Your task to perform on an android device: open device folders in google photos Image 0: 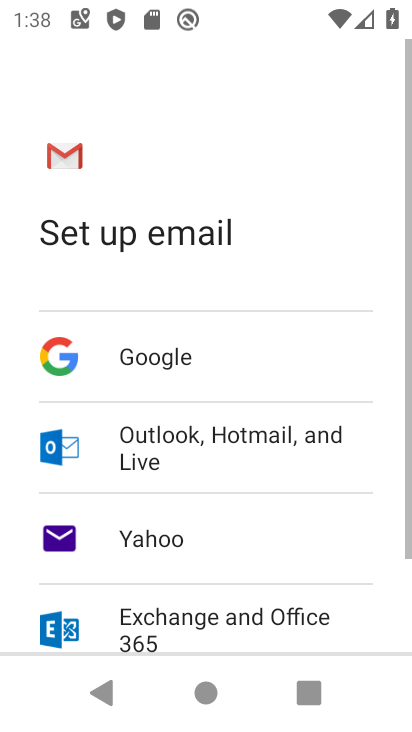
Step 0: press home button
Your task to perform on an android device: open device folders in google photos Image 1: 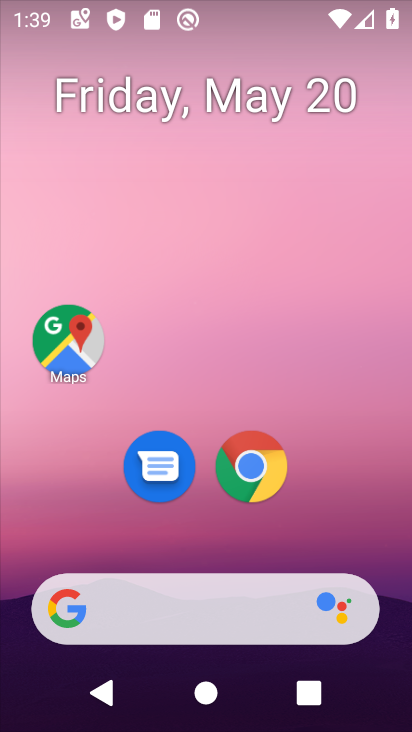
Step 1: drag from (180, 558) to (85, 120)
Your task to perform on an android device: open device folders in google photos Image 2: 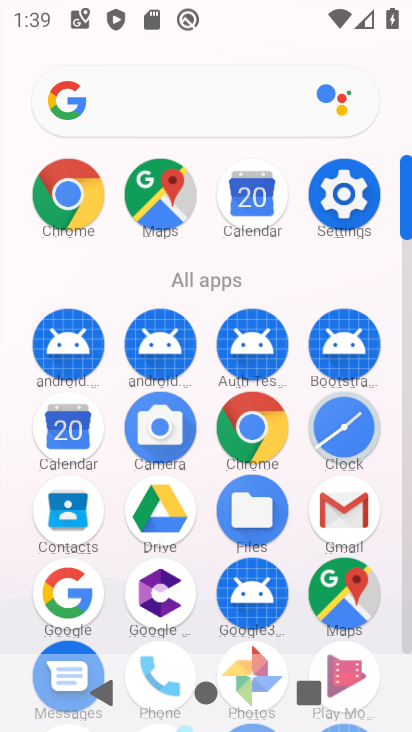
Step 2: click (243, 643)
Your task to perform on an android device: open device folders in google photos Image 3: 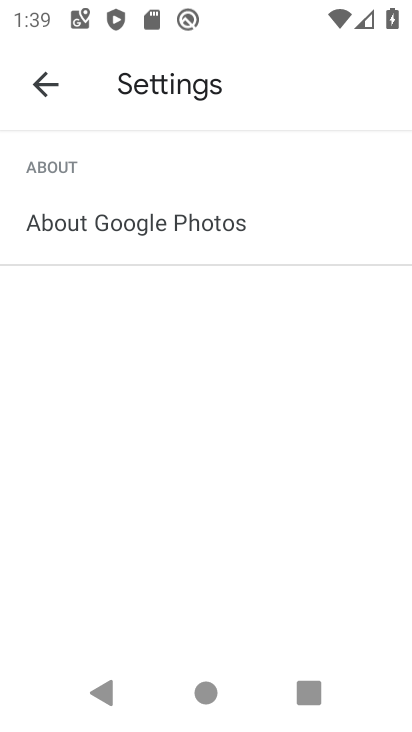
Step 3: click (52, 78)
Your task to perform on an android device: open device folders in google photos Image 4: 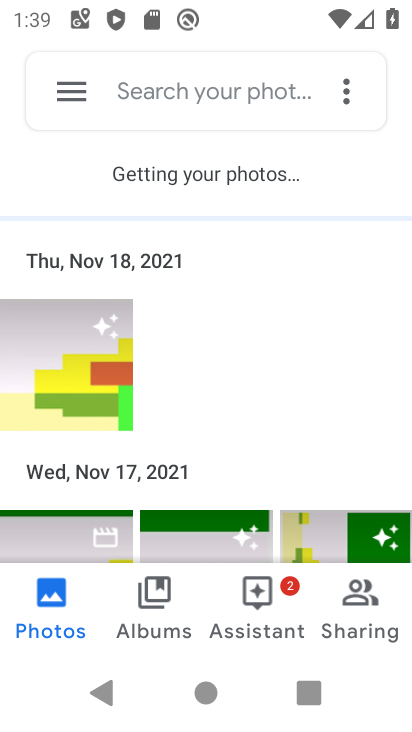
Step 4: click (75, 99)
Your task to perform on an android device: open device folders in google photos Image 5: 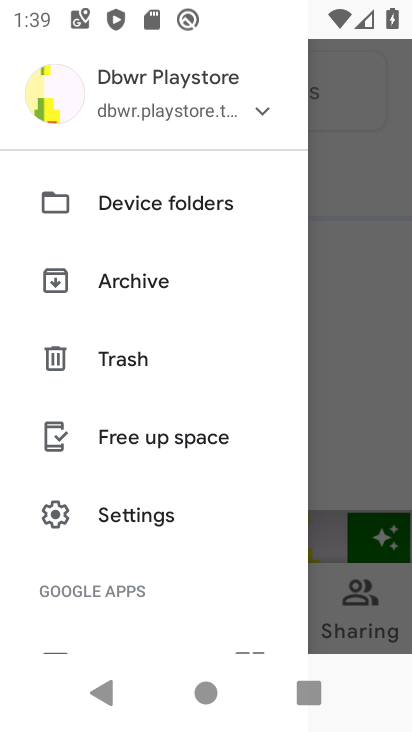
Step 5: click (151, 225)
Your task to perform on an android device: open device folders in google photos Image 6: 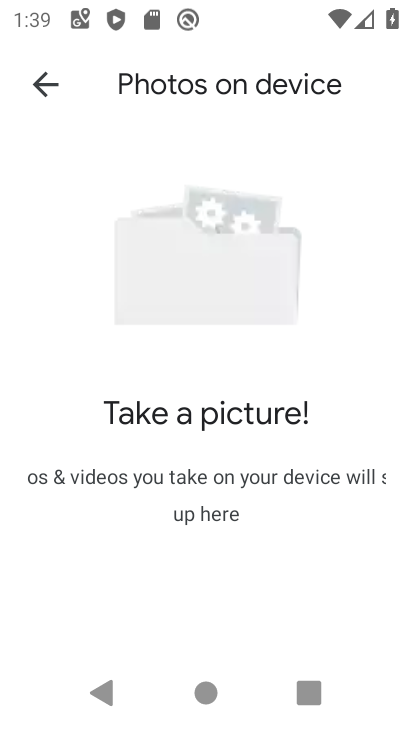
Step 6: task complete